Your task to perform on an android device: turn on translation in the chrome app Image 0: 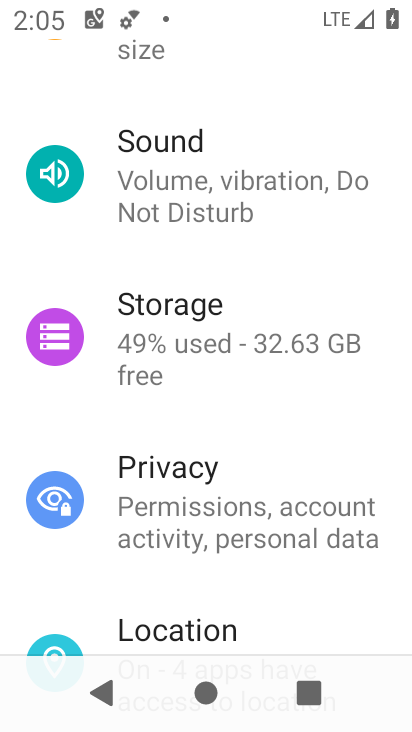
Step 0: press home button
Your task to perform on an android device: turn on translation in the chrome app Image 1: 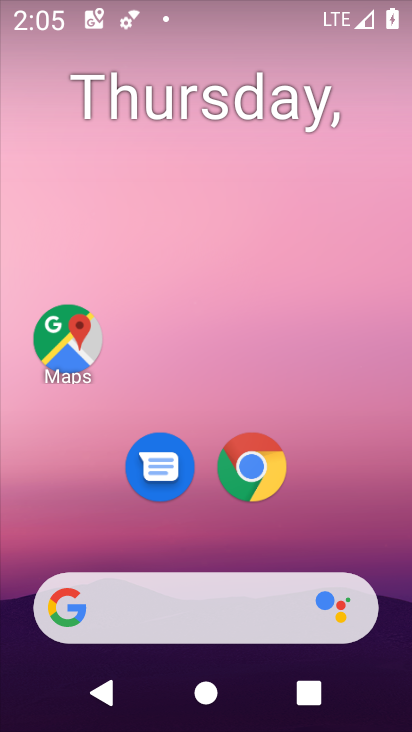
Step 1: drag from (206, 559) to (234, 5)
Your task to perform on an android device: turn on translation in the chrome app Image 2: 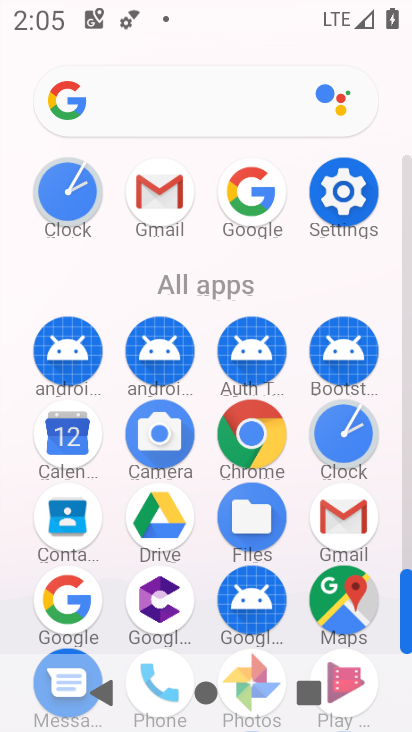
Step 2: click (261, 448)
Your task to perform on an android device: turn on translation in the chrome app Image 3: 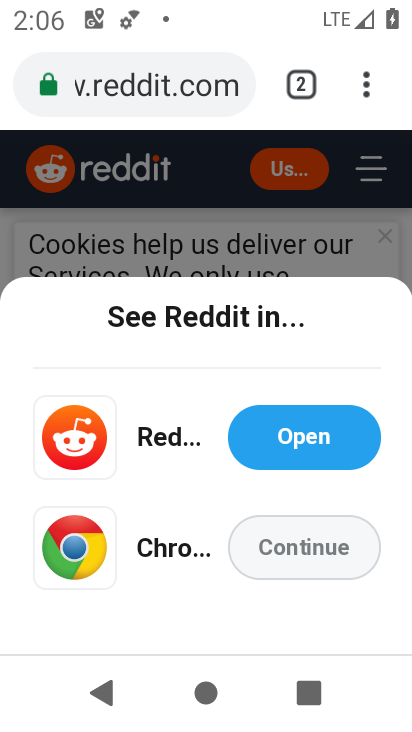
Step 3: click (306, 555)
Your task to perform on an android device: turn on translation in the chrome app Image 4: 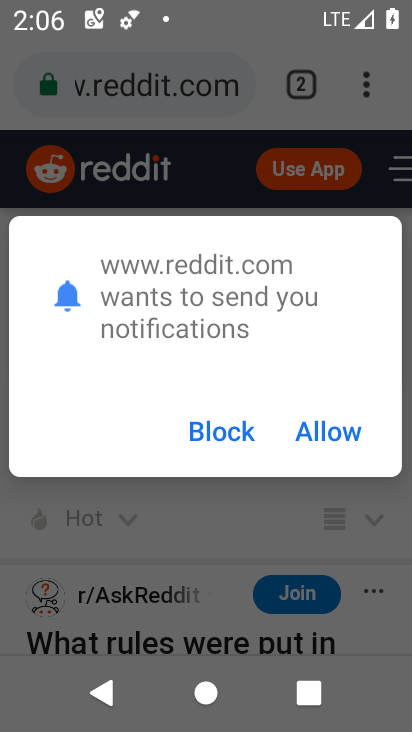
Step 4: drag from (228, 427) to (168, 111)
Your task to perform on an android device: turn on translation in the chrome app Image 5: 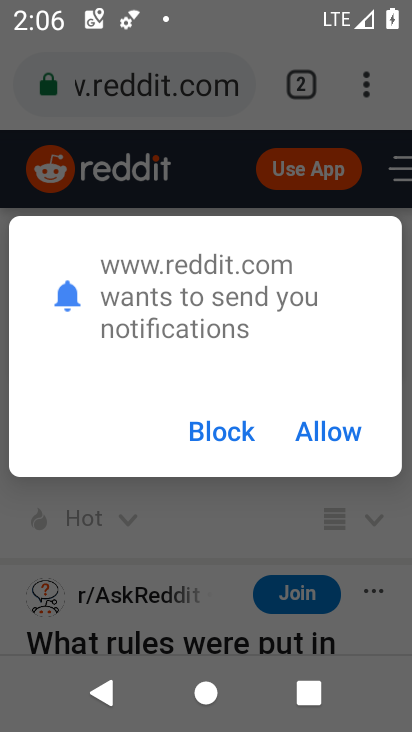
Step 5: click (338, 436)
Your task to perform on an android device: turn on translation in the chrome app Image 6: 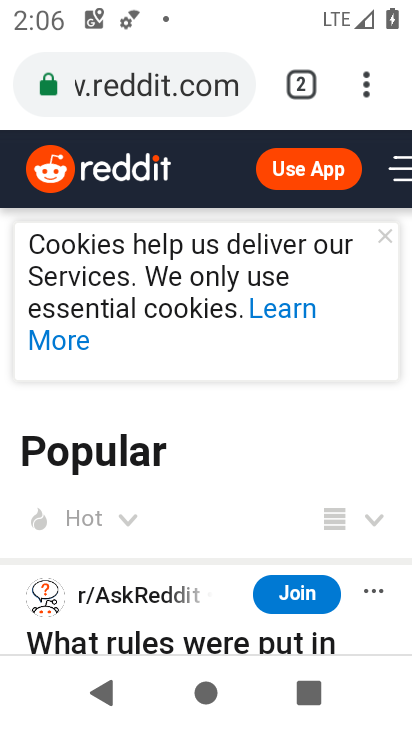
Step 6: click (373, 82)
Your task to perform on an android device: turn on translation in the chrome app Image 7: 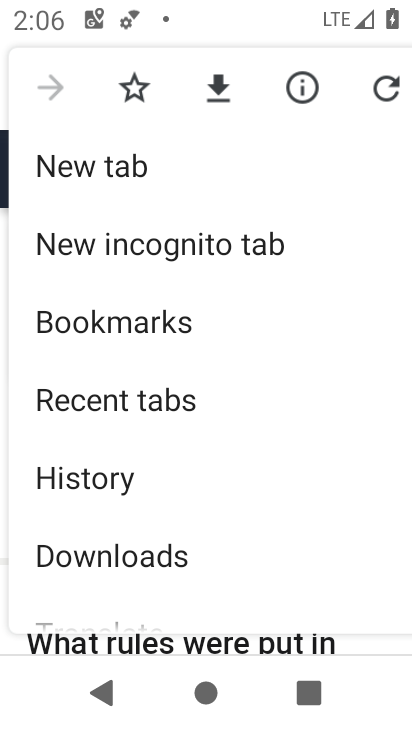
Step 7: drag from (180, 571) to (122, 112)
Your task to perform on an android device: turn on translation in the chrome app Image 8: 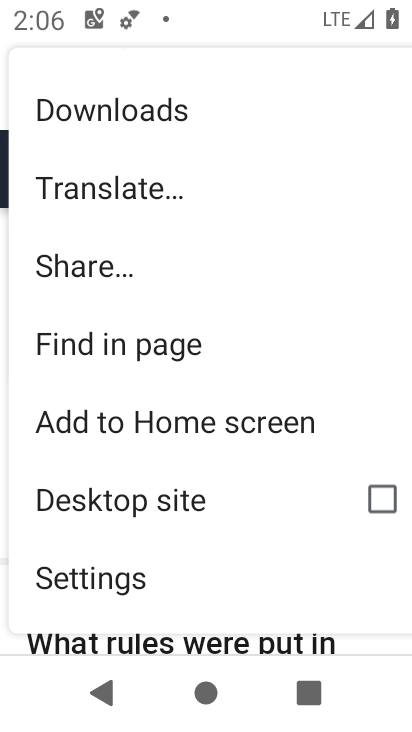
Step 8: click (130, 574)
Your task to perform on an android device: turn on translation in the chrome app Image 9: 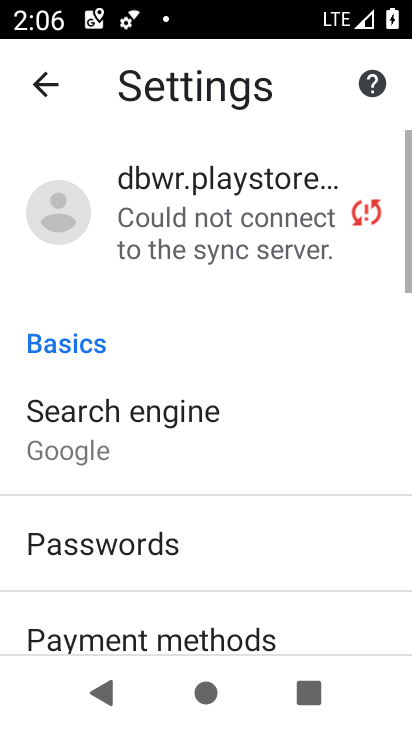
Step 9: drag from (130, 567) to (64, 67)
Your task to perform on an android device: turn on translation in the chrome app Image 10: 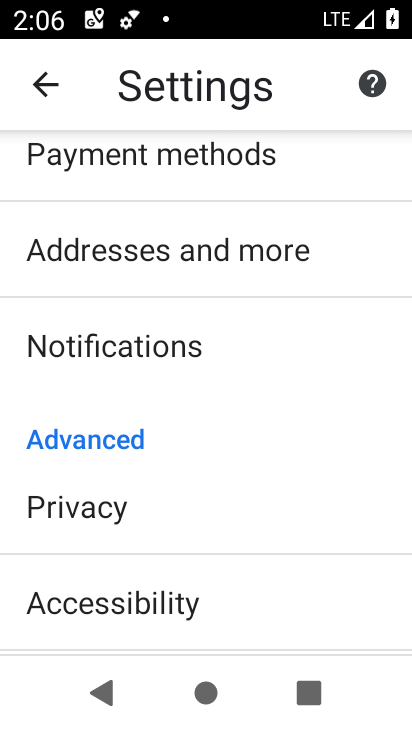
Step 10: drag from (147, 516) to (81, 171)
Your task to perform on an android device: turn on translation in the chrome app Image 11: 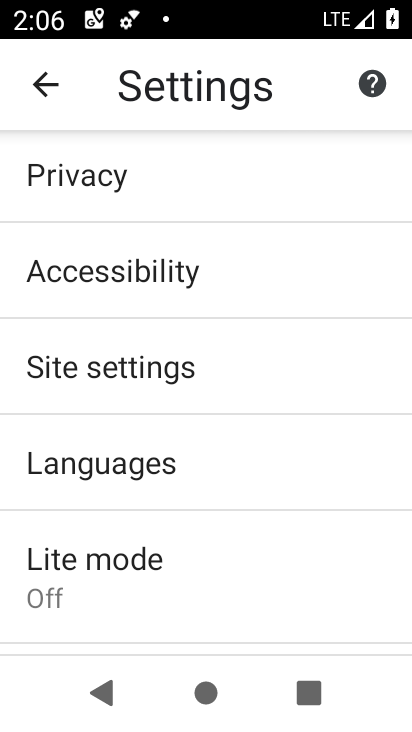
Step 11: click (124, 478)
Your task to perform on an android device: turn on translation in the chrome app Image 12: 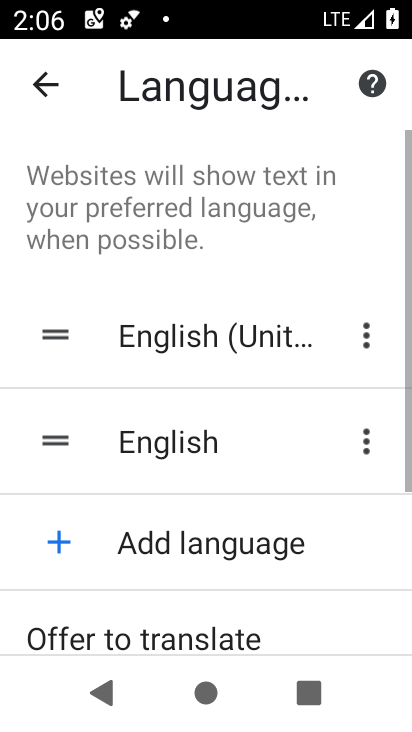
Step 12: drag from (181, 622) to (130, 260)
Your task to perform on an android device: turn on translation in the chrome app Image 13: 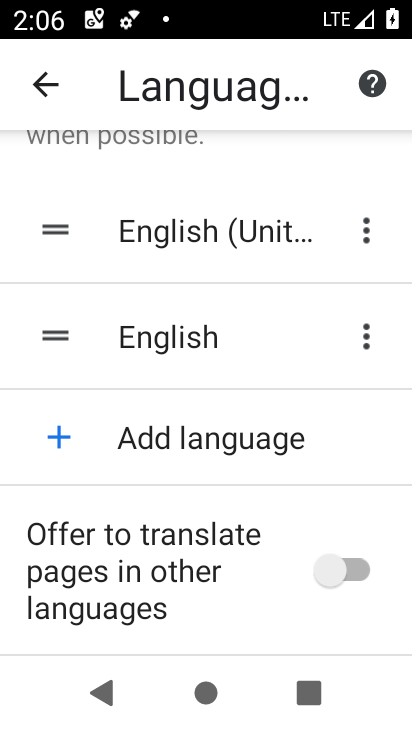
Step 13: click (327, 573)
Your task to perform on an android device: turn on translation in the chrome app Image 14: 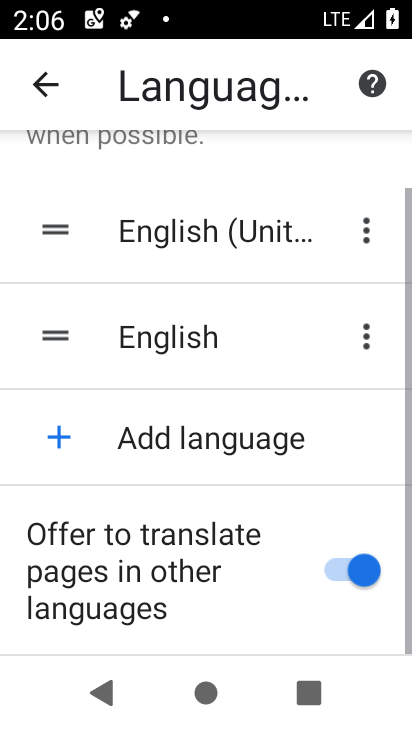
Step 14: task complete